Your task to perform on an android device: search for starred emails in the gmail app Image 0: 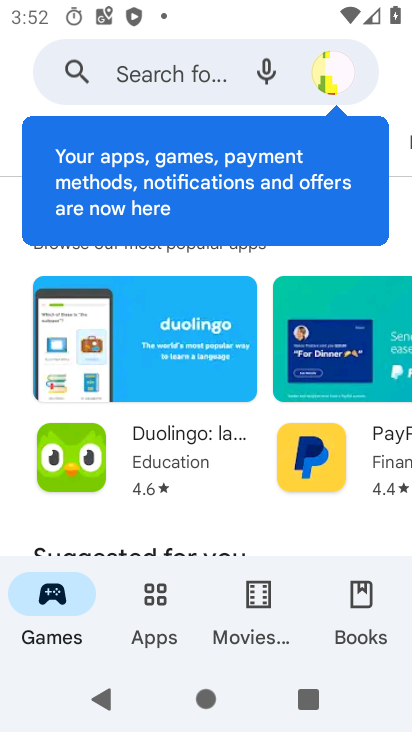
Step 0: press home button
Your task to perform on an android device: search for starred emails in the gmail app Image 1: 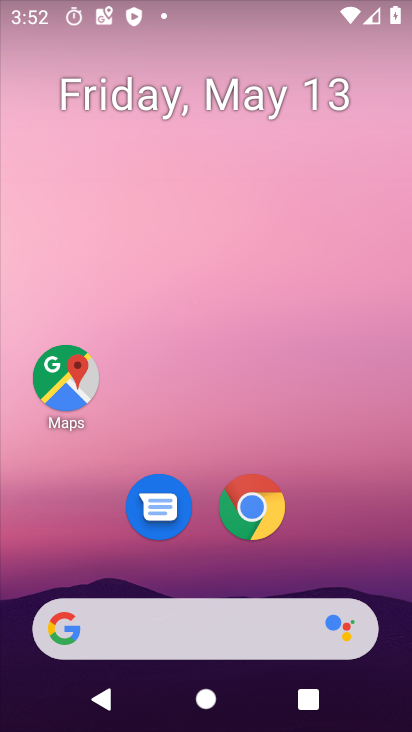
Step 1: drag from (204, 442) to (241, 151)
Your task to perform on an android device: search for starred emails in the gmail app Image 2: 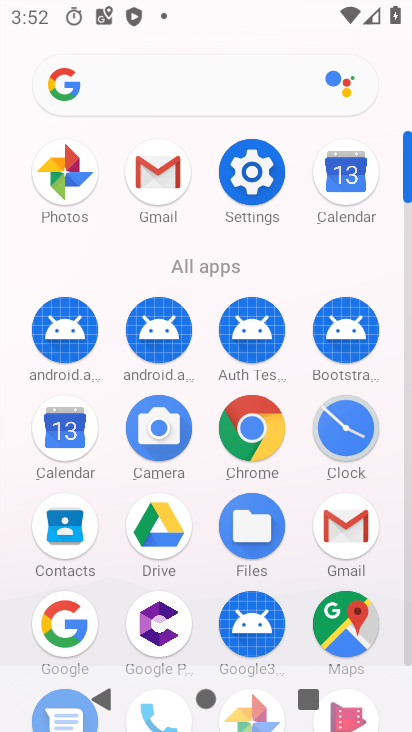
Step 2: click (329, 514)
Your task to perform on an android device: search for starred emails in the gmail app Image 3: 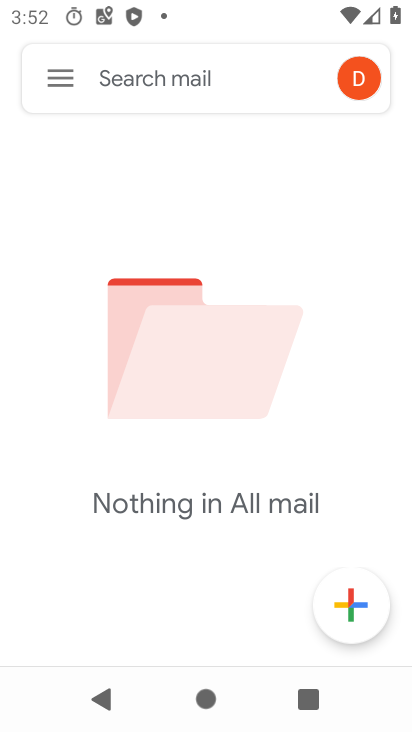
Step 3: click (64, 92)
Your task to perform on an android device: search for starred emails in the gmail app Image 4: 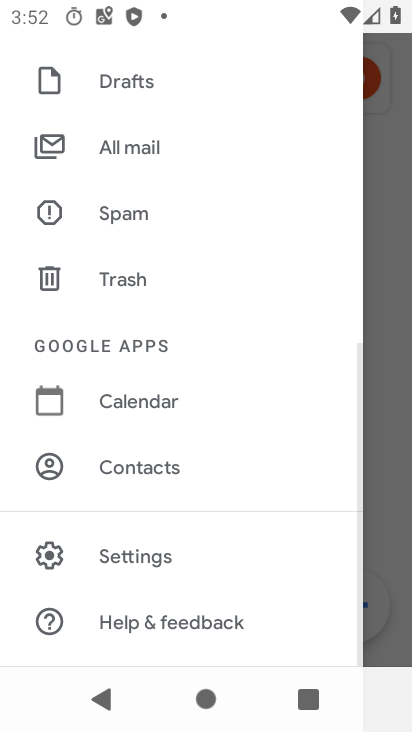
Step 4: drag from (206, 211) to (231, 588)
Your task to perform on an android device: search for starred emails in the gmail app Image 5: 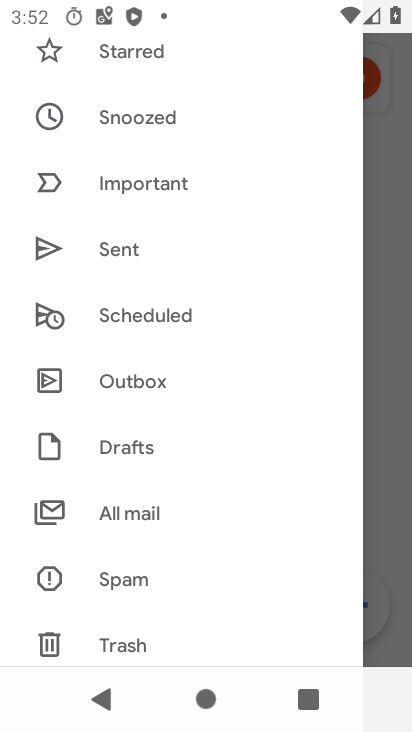
Step 5: click (182, 61)
Your task to perform on an android device: search for starred emails in the gmail app Image 6: 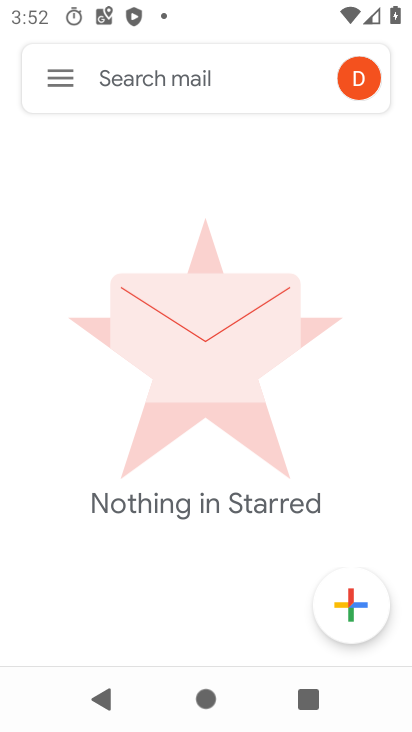
Step 6: task complete